Your task to perform on an android device: Open Yahoo.com Image 0: 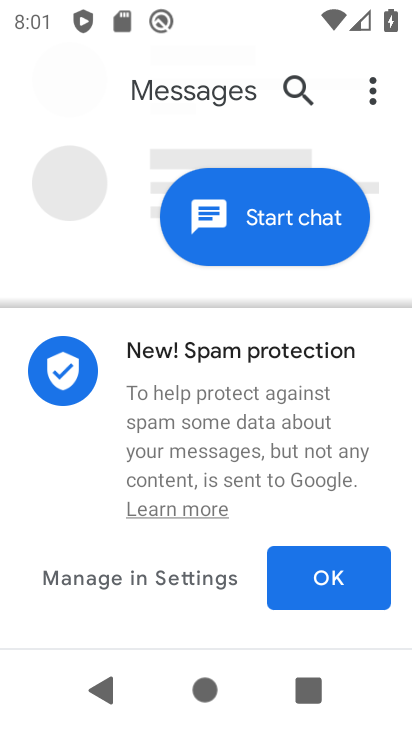
Step 0: press home button
Your task to perform on an android device: Open Yahoo.com Image 1: 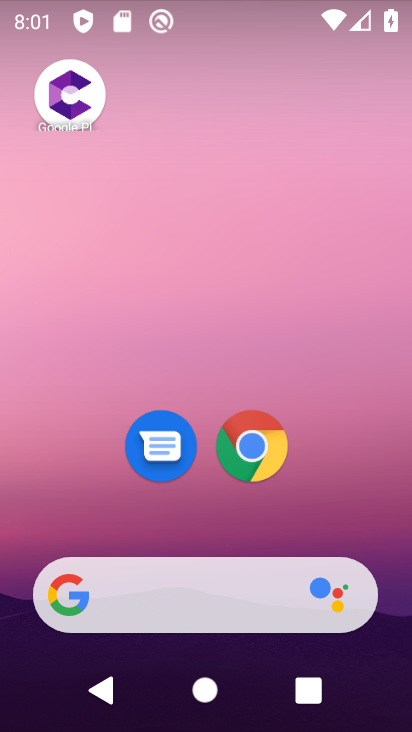
Step 1: drag from (213, 373) to (86, 681)
Your task to perform on an android device: Open Yahoo.com Image 2: 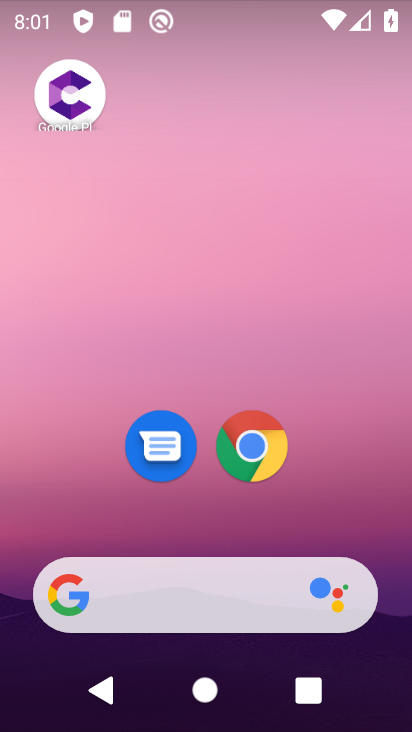
Step 2: drag from (252, 371) to (274, 68)
Your task to perform on an android device: Open Yahoo.com Image 3: 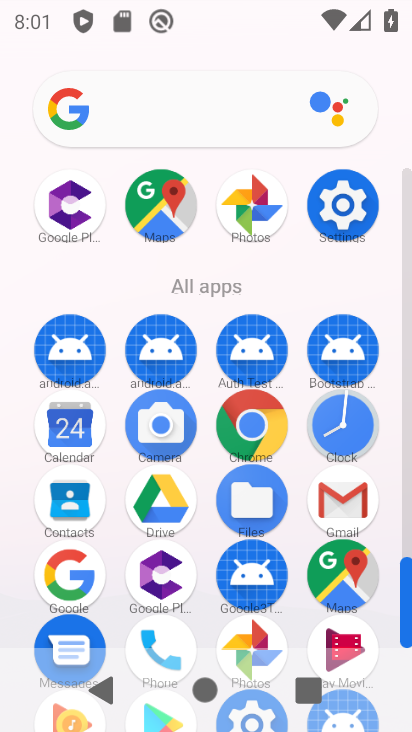
Step 3: drag from (257, 429) to (274, 157)
Your task to perform on an android device: Open Yahoo.com Image 4: 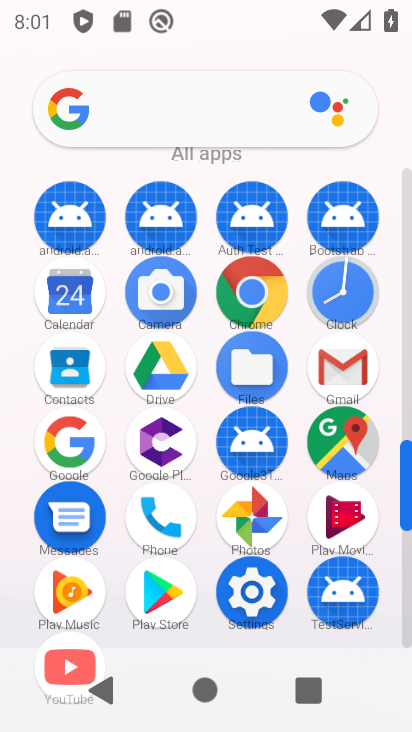
Step 4: click (260, 310)
Your task to perform on an android device: Open Yahoo.com Image 5: 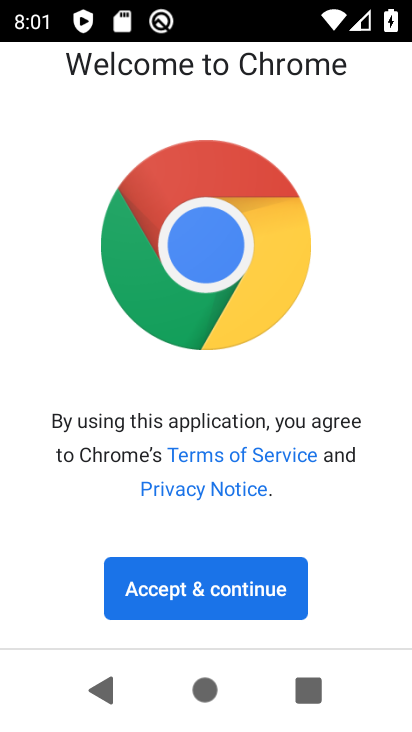
Step 5: click (230, 604)
Your task to perform on an android device: Open Yahoo.com Image 6: 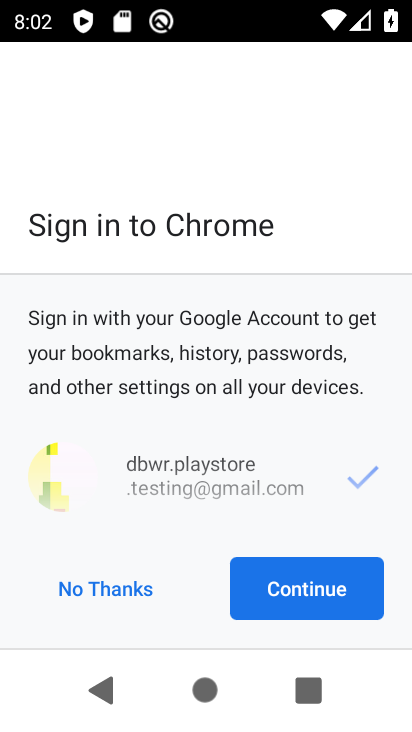
Step 6: click (314, 591)
Your task to perform on an android device: Open Yahoo.com Image 7: 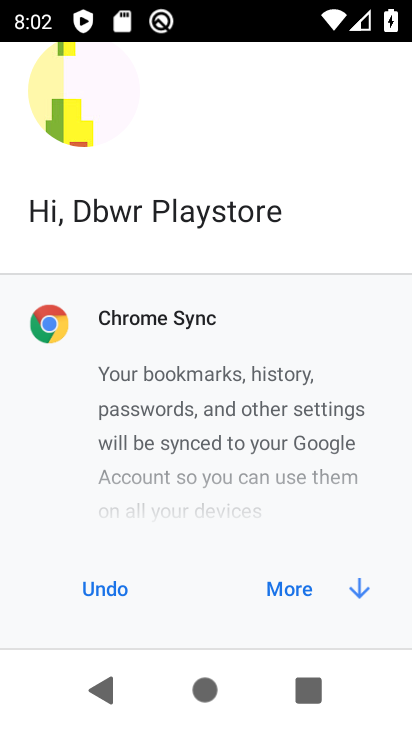
Step 7: click (312, 597)
Your task to perform on an android device: Open Yahoo.com Image 8: 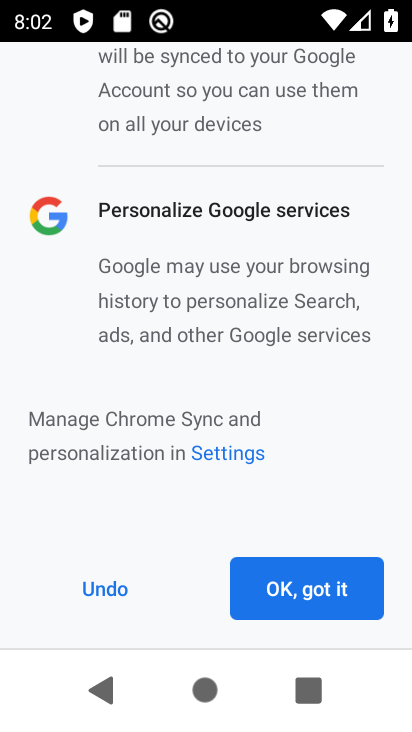
Step 8: click (309, 592)
Your task to perform on an android device: Open Yahoo.com Image 9: 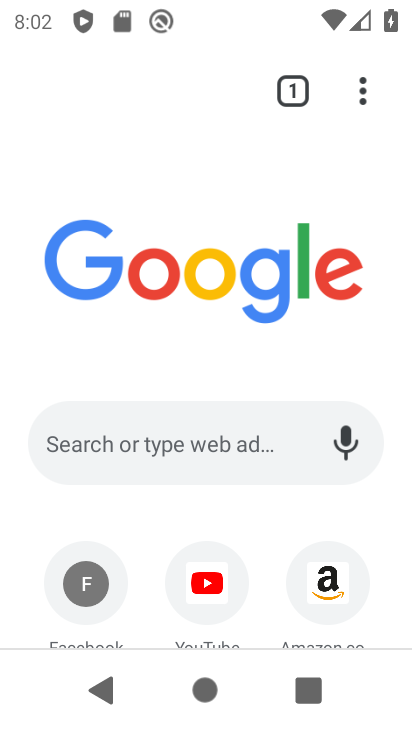
Step 9: drag from (175, 499) to (280, 132)
Your task to perform on an android device: Open Yahoo.com Image 10: 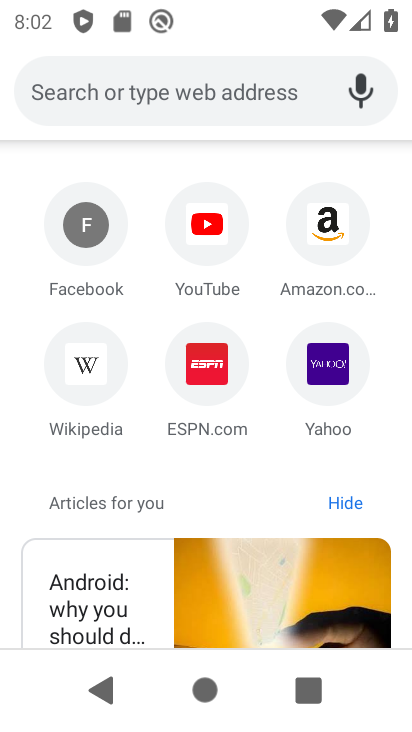
Step 10: click (325, 378)
Your task to perform on an android device: Open Yahoo.com Image 11: 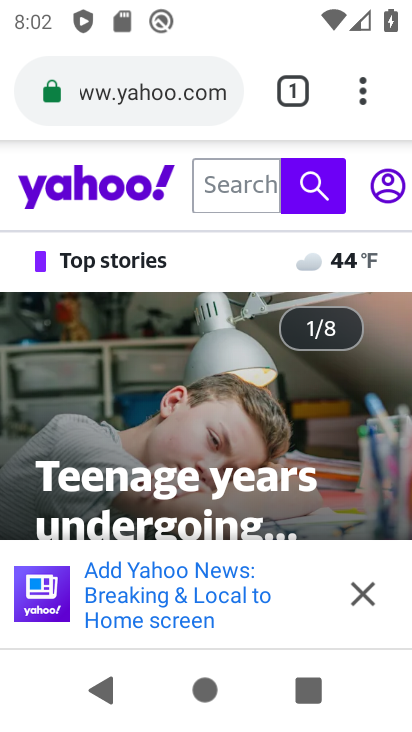
Step 11: task complete